Your task to perform on an android device: Go to display settings Image 0: 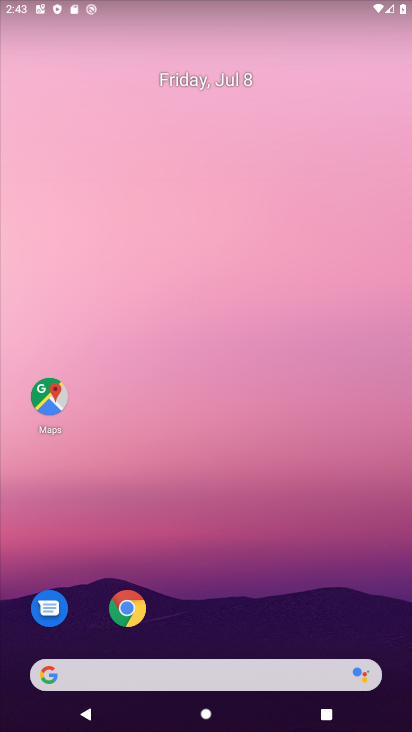
Step 0: drag from (258, 661) to (236, 7)
Your task to perform on an android device: Go to display settings Image 1: 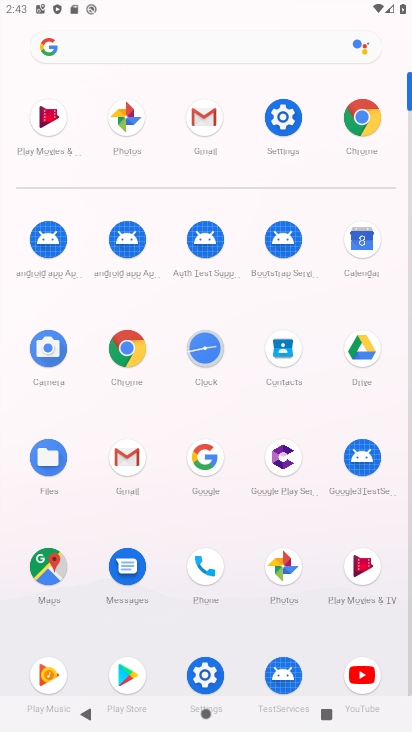
Step 1: click (288, 114)
Your task to perform on an android device: Go to display settings Image 2: 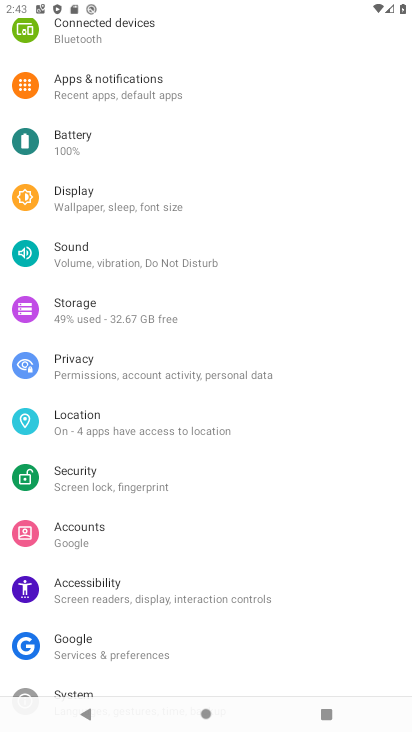
Step 2: drag from (244, 131) to (234, 636)
Your task to perform on an android device: Go to display settings Image 3: 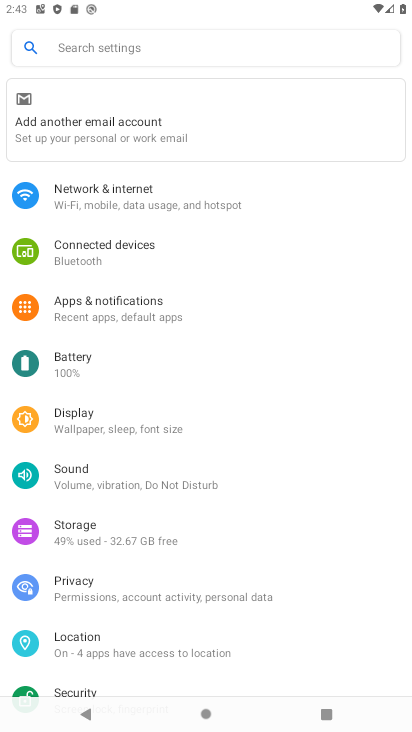
Step 3: click (162, 203)
Your task to perform on an android device: Go to display settings Image 4: 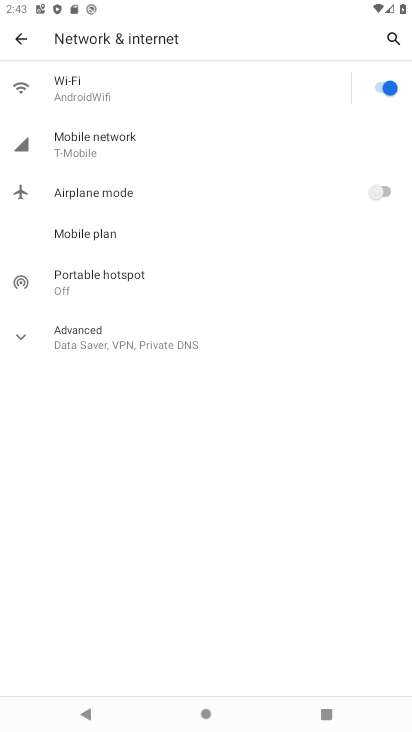
Step 4: press back button
Your task to perform on an android device: Go to display settings Image 5: 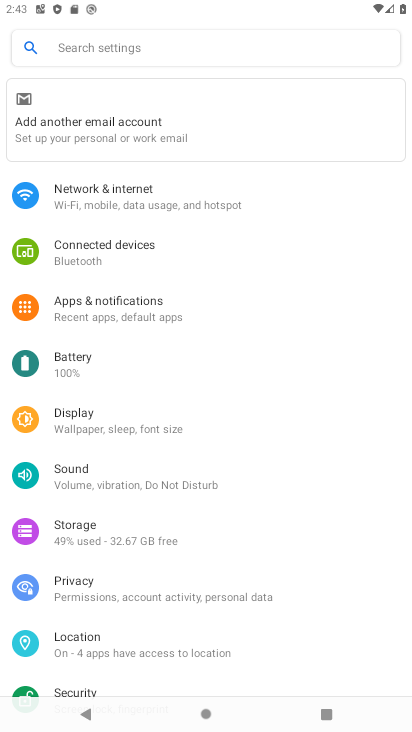
Step 5: click (98, 421)
Your task to perform on an android device: Go to display settings Image 6: 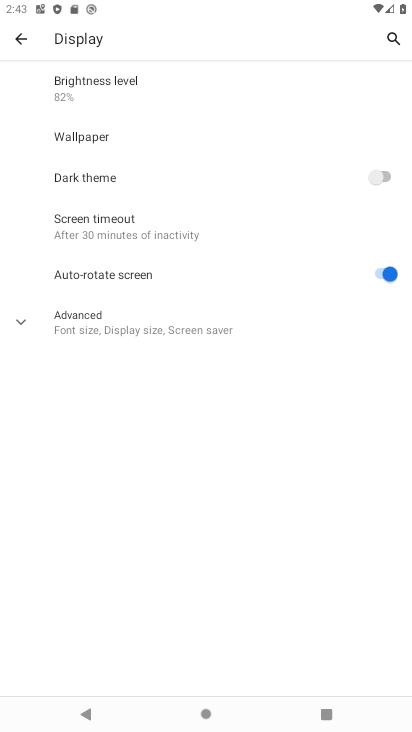
Step 6: task complete